Your task to perform on an android device: Do I have any events this weekend? Image 0: 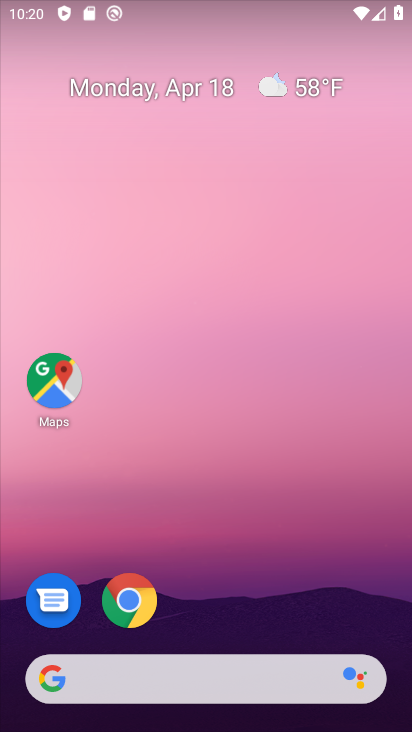
Step 0: drag from (205, 508) to (164, 12)
Your task to perform on an android device: Do I have any events this weekend? Image 1: 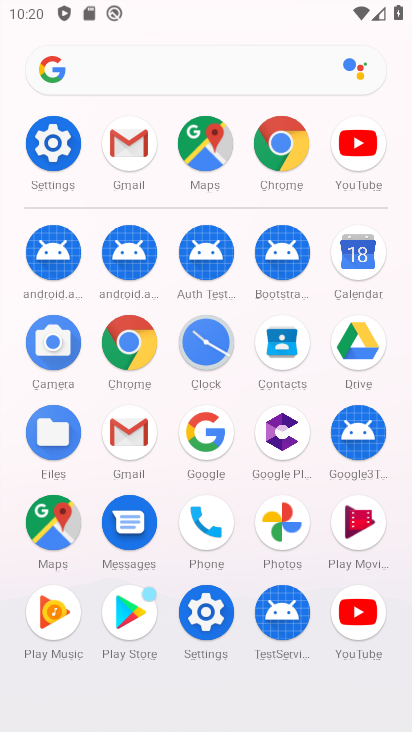
Step 1: click (355, 251)
Your task to perform on an android device: Do I have any events this weekend? Image 2: 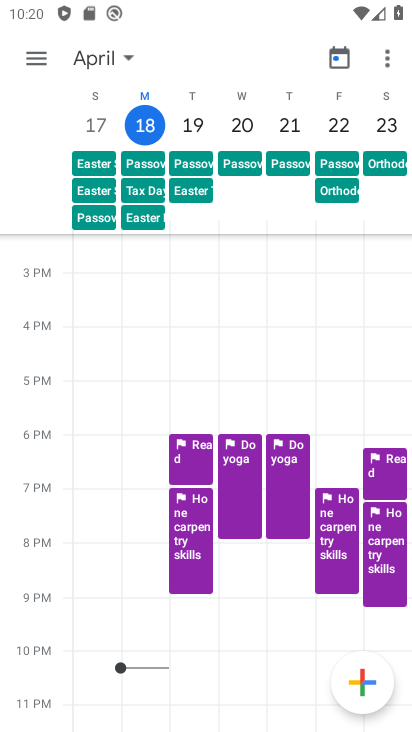
Step 2: task complete